Your task to perform on an android device: change notification settings in the gmail app Image 0: 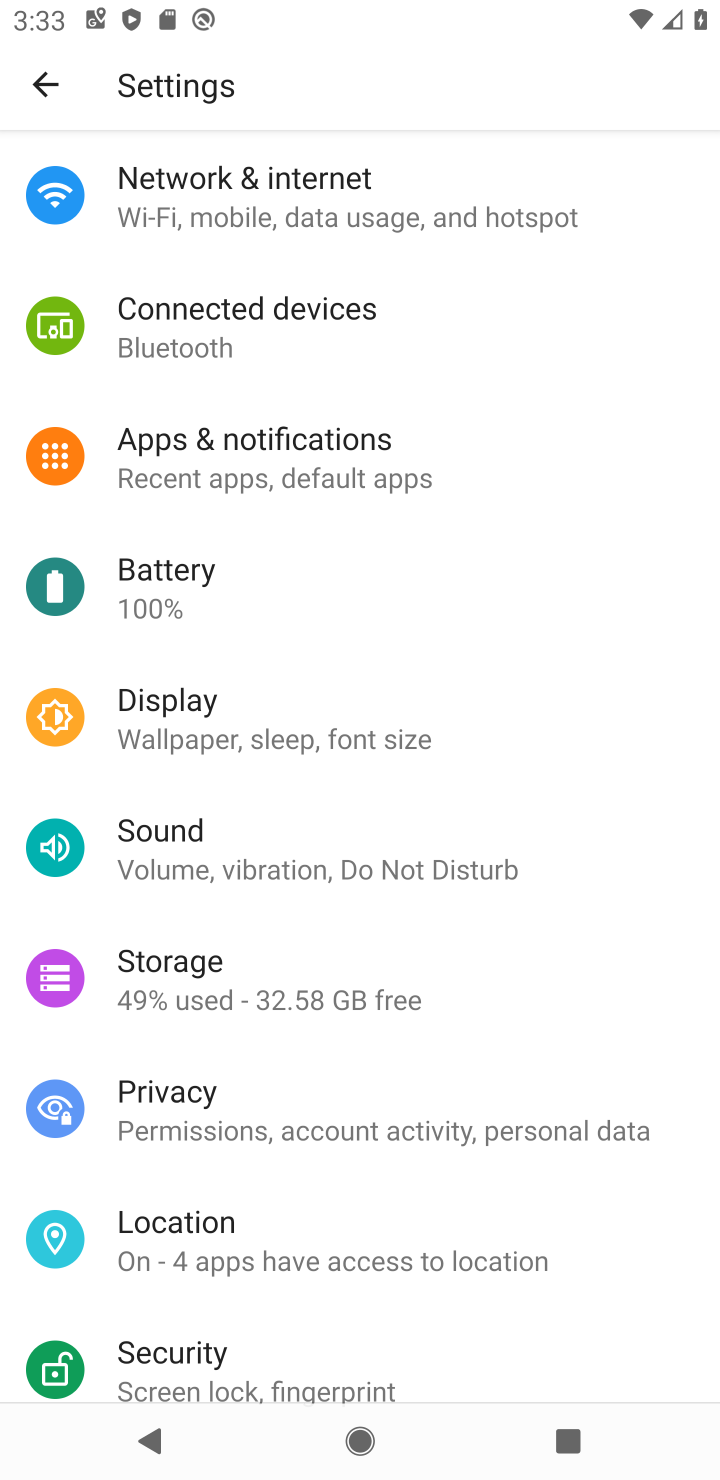
Step 0: press home button
Your task to perform on an android device: change notification settings in the gmail app Image 1: 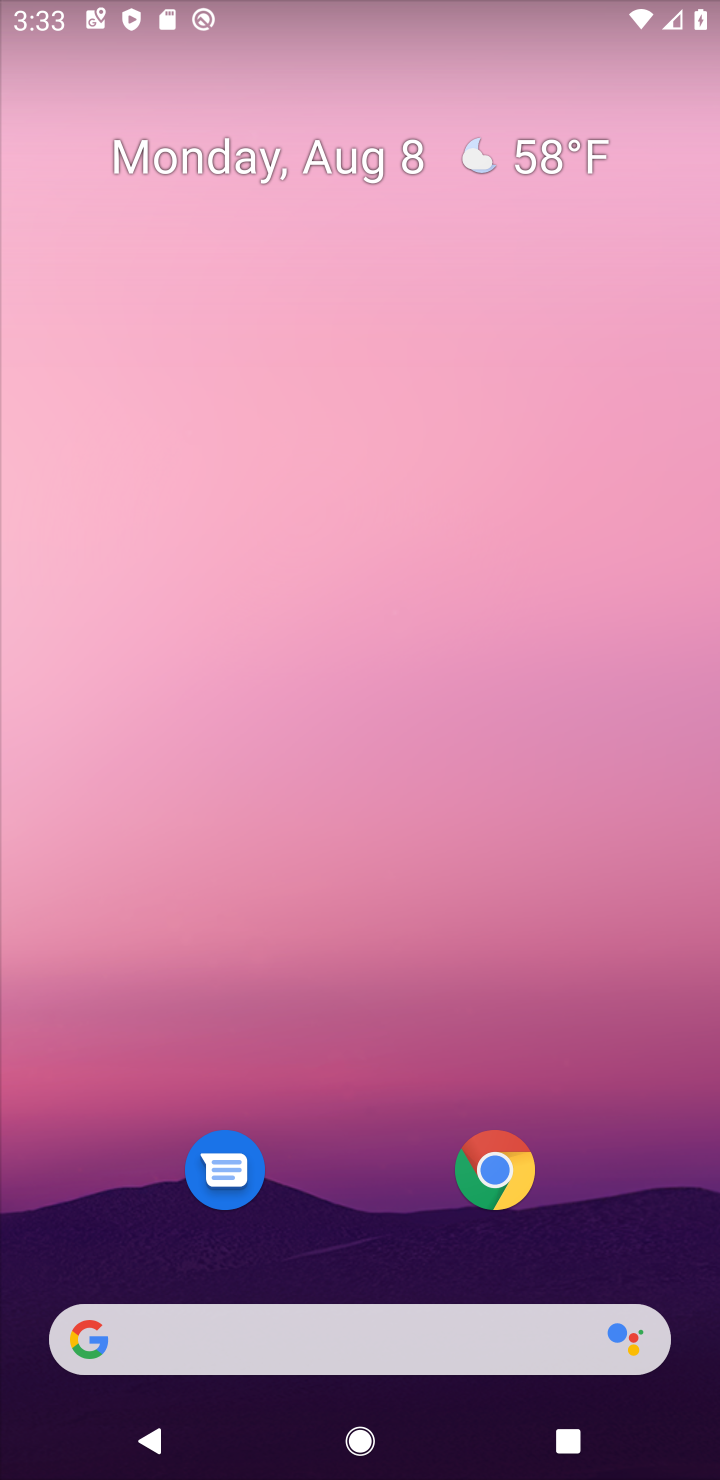
Step 1: drag from (341, 1196) to (297, 487)
Your task to perform on an android device: change notification settings in the gmail app Image 2: 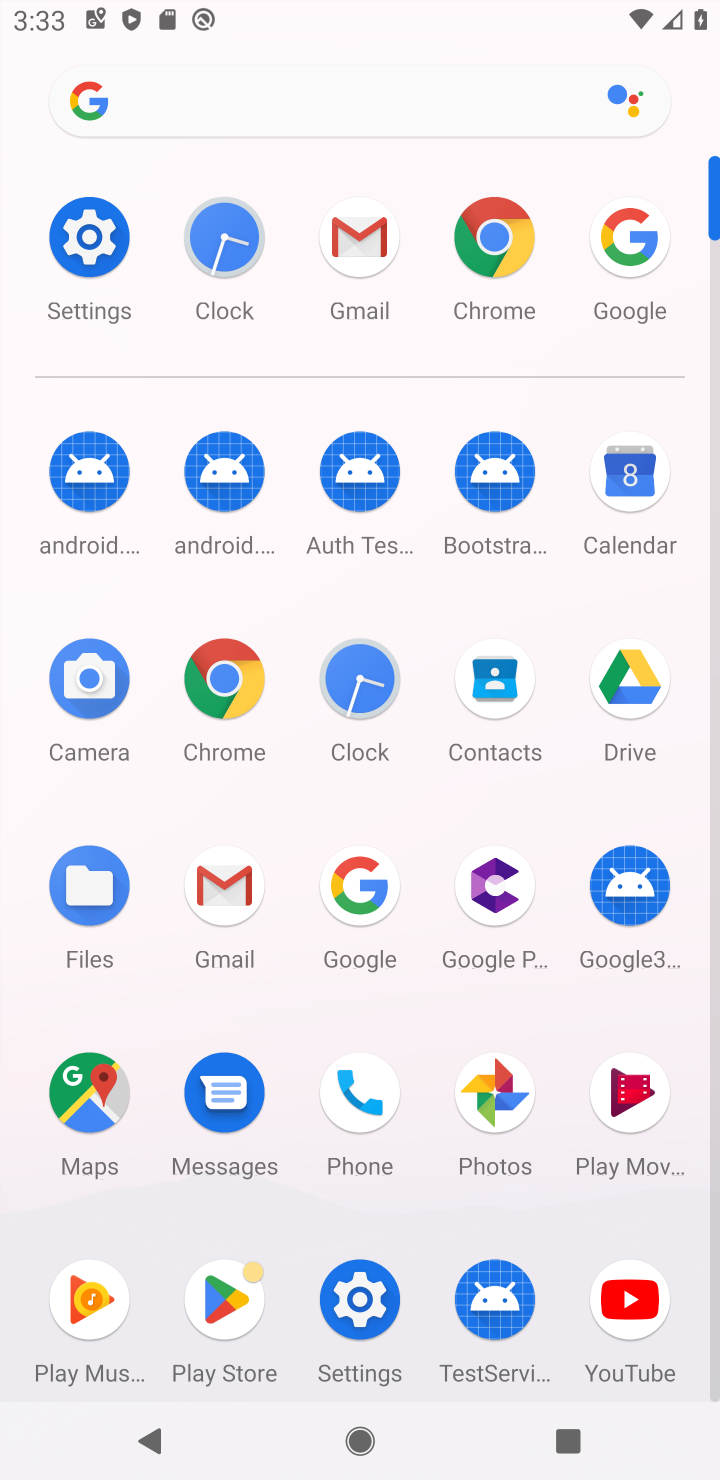
Step 2: click (253, 923)
Your task to perform on an android device: change notification settings in the gmail app Image 3: 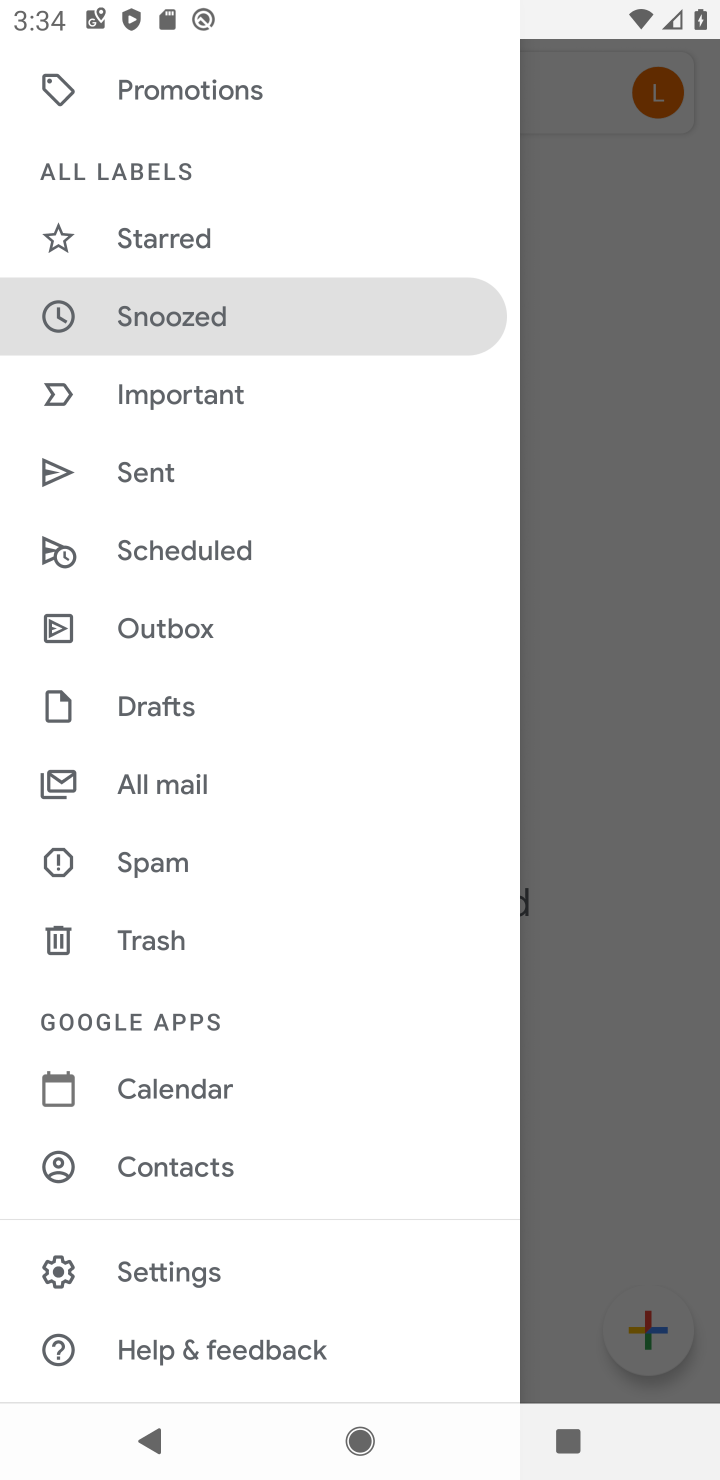
Step 3: click (208, 1262)
Your task to perform on an android device: change notification settings in the gmail app Image 4: 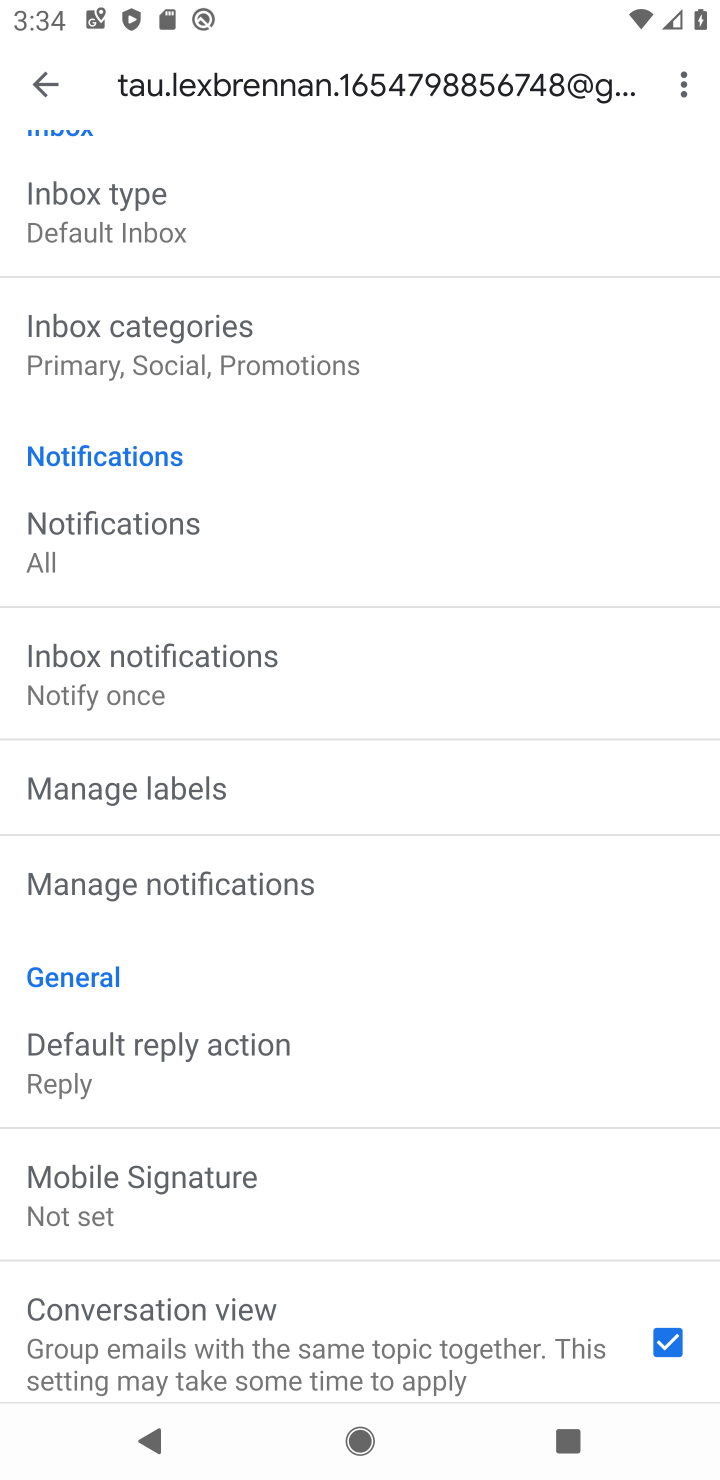
Step 4: click (236, 893)
Your task to perform on an android device: change notification settings in the gmail app Image 5: 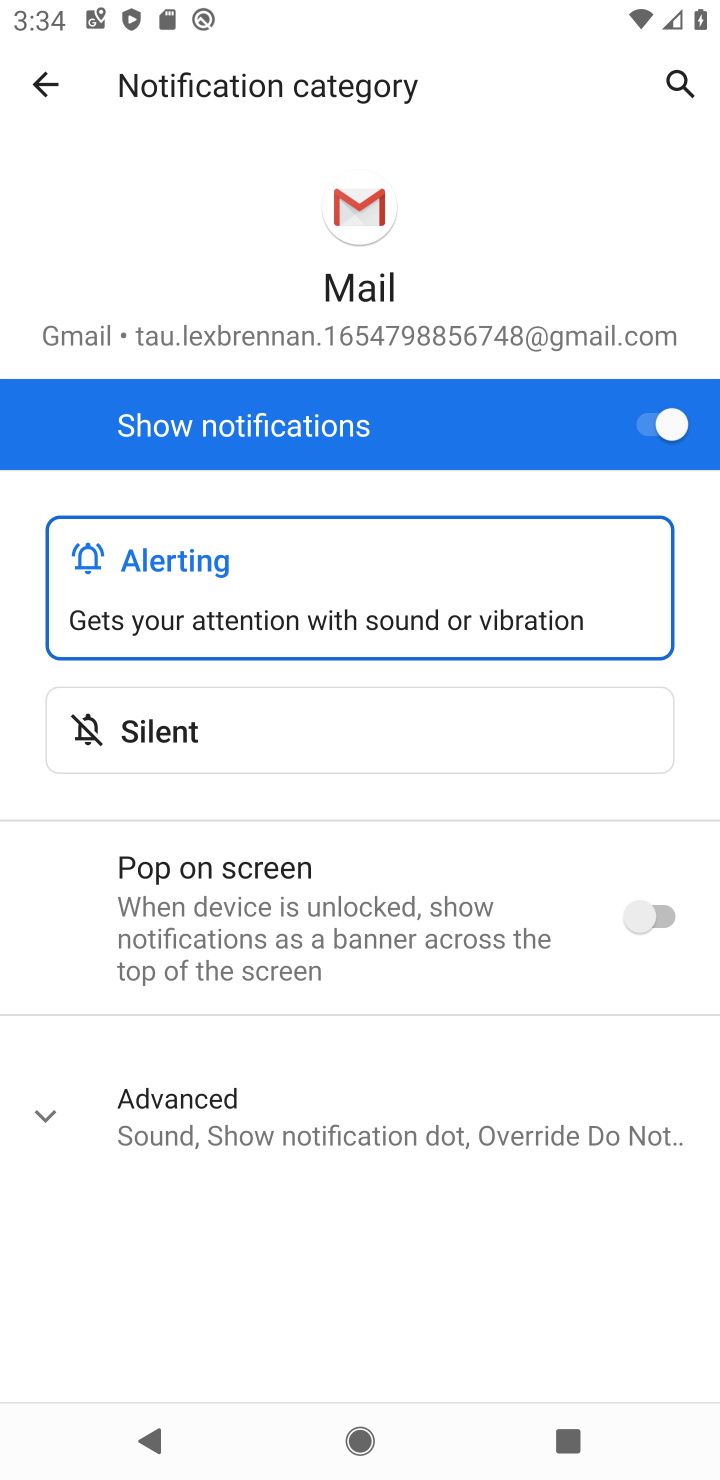
Step 5: task complete